Your task to perform on an android device: What's the weather going to be this weekend? Image 0: 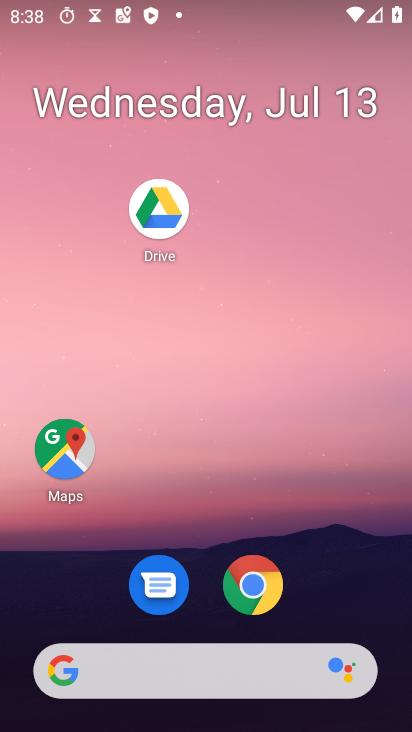
Step 0: click (196, 665)
Your task to perform on an android device: What's the weather going to be this weekend? Image 1: 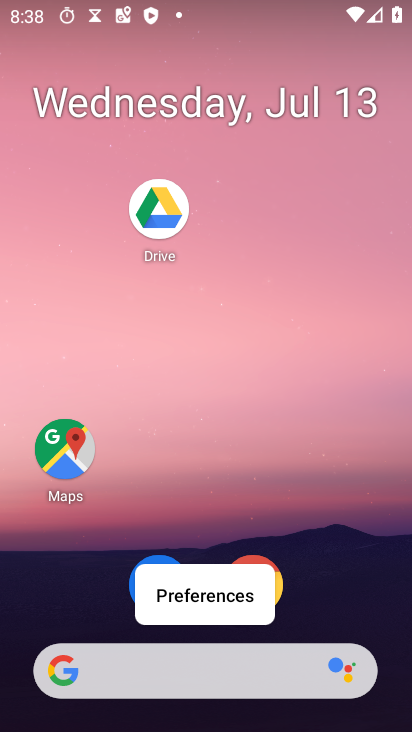
Step 1: click (185, 673)
Your task to perform on an android device: What's the weather going to be this weekend? Image 2: 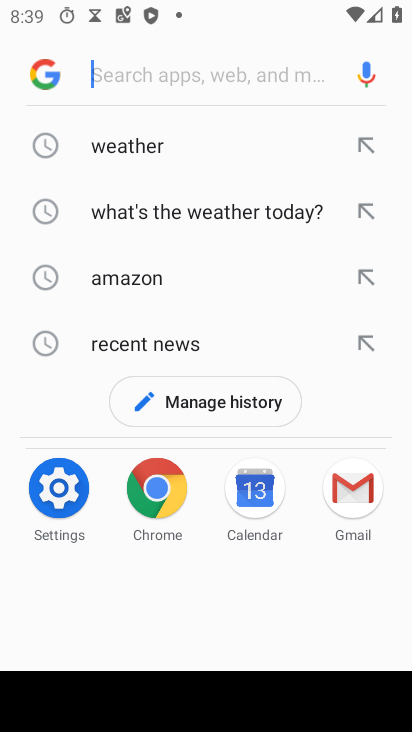
Step 2: click (156, 145)
Your task to perform on an android device: What's the weather going to be this weekend? Image 3: 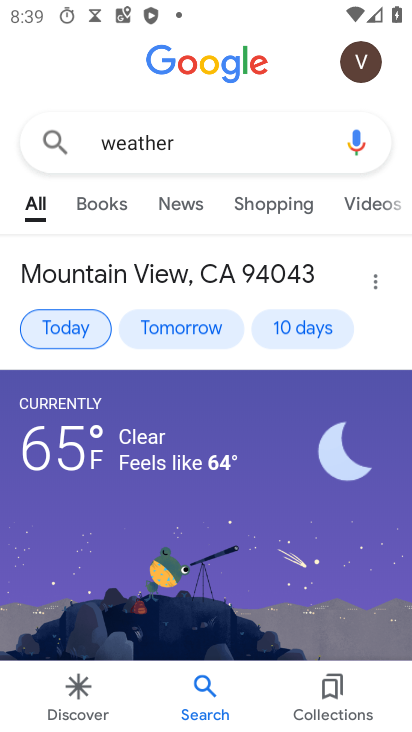
Step 3: click (282, 335)
Your task to perform on an android device: What's the weather going to be this weekend? Image 4: 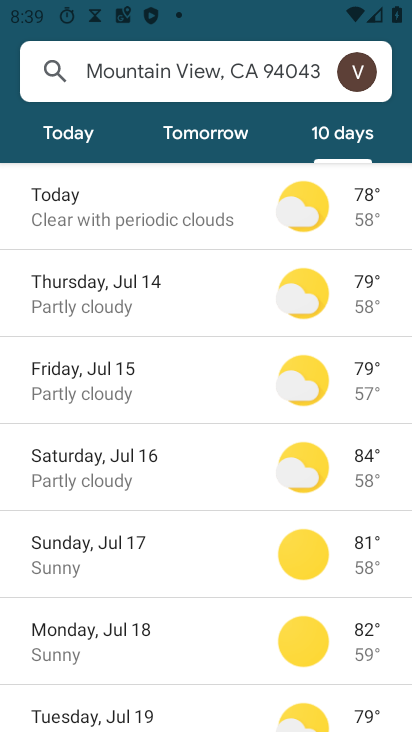
Step 4: click (139, 474)
Your task to perform on an android device: What's the weather going to be this weekend? Image 5: 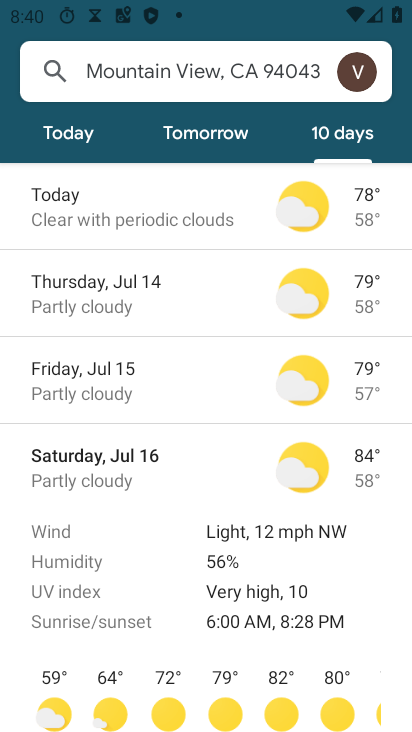
Step 5: task complete